Your task to perform on an android device: change timer sound Image 0: 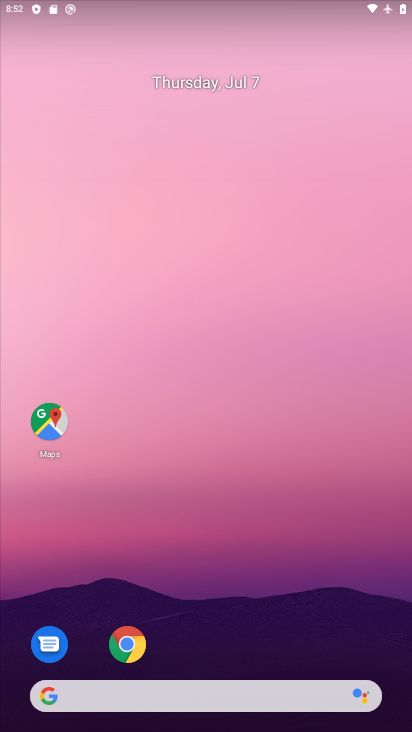
Step 0: click (232, 444)
Your task to perform on an android device: change timer sound Image 1: 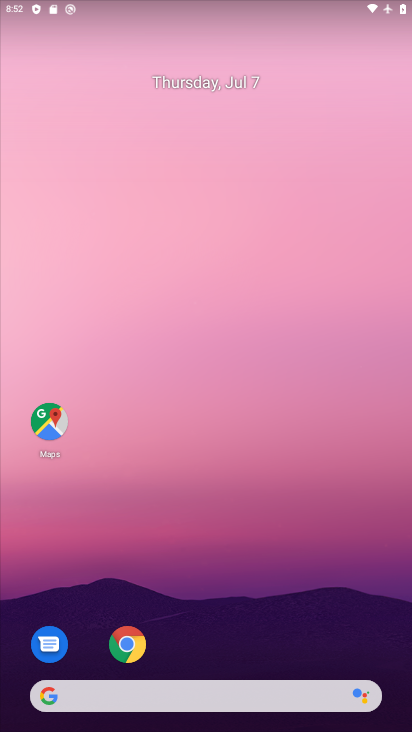
Step 1: drag from (274, 713) to (189, 25)
Your task to perform on an android device: change timer sound Image 2: 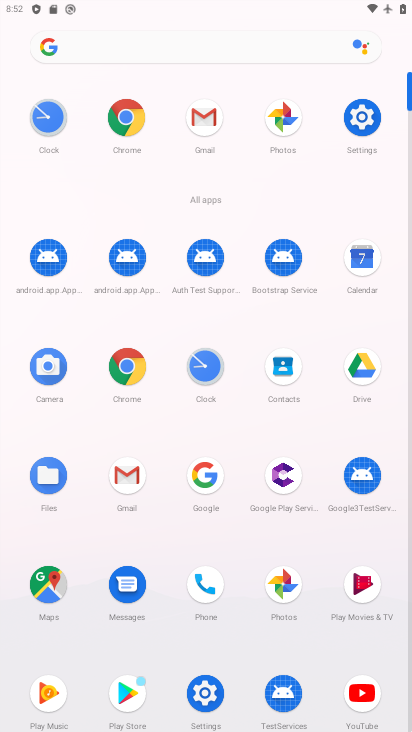
Step 2: click (357, 118)
Your task to perform on an android device: change timer sound Image 3: 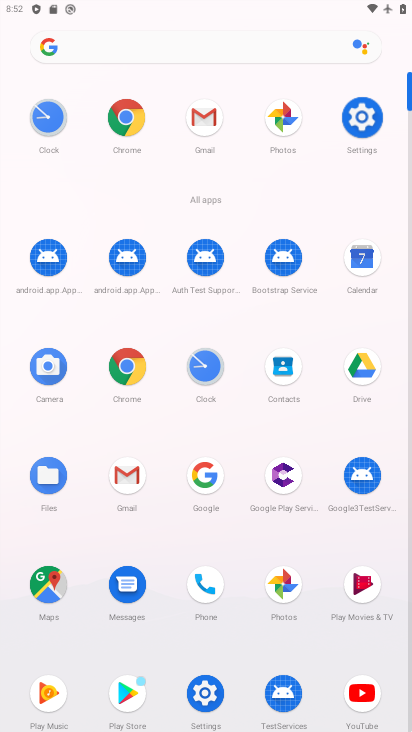
Step 3: click (357, 118)
Your task to perform on an android device: change timer sound Image 4: 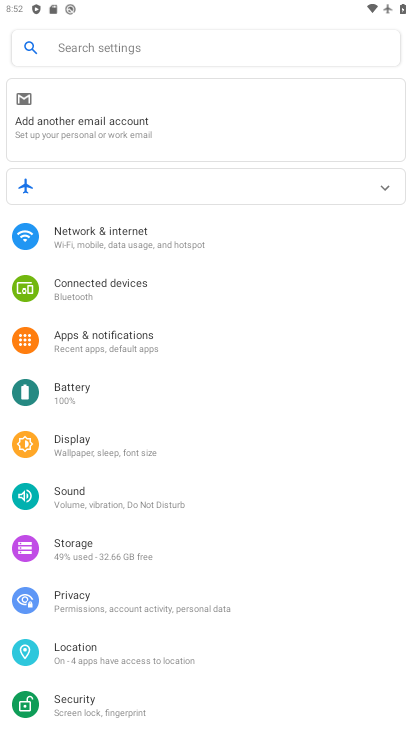
Step 4: press back button
Your task to perform on an android device: change timer sound Image 5: 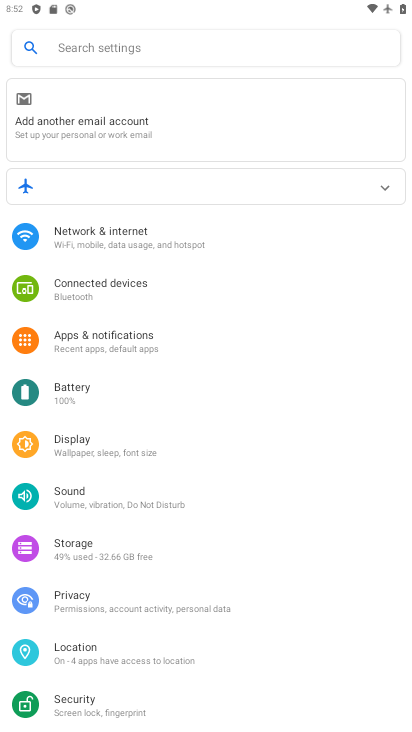
Step 5: press back button
Your task to perform on an android device: change timer sound Image 6: 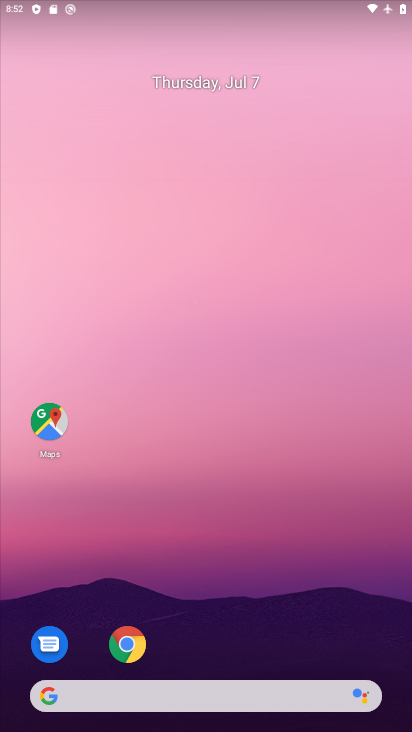
Step 6: drag from (276, 700) to (248, 232)
Your task to perform on an android device: change timer sound Image 7: 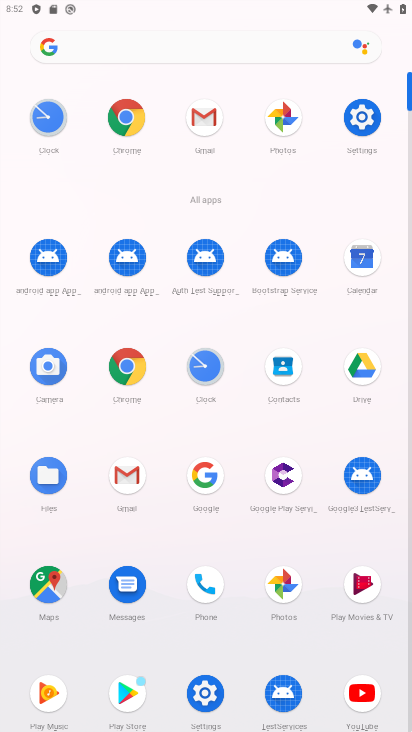
Step 7: click (213, 355)
Your task to perform on an android device: change timer sound Image 8: 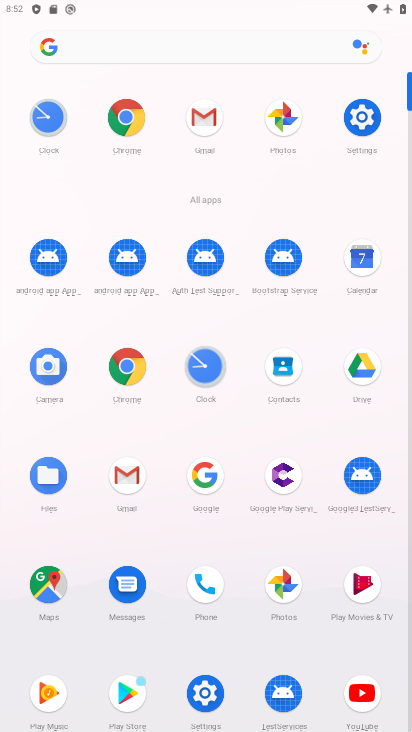
Step 8: click (212, 361)
Your task to perform on an android device: change timer sound Image 9: 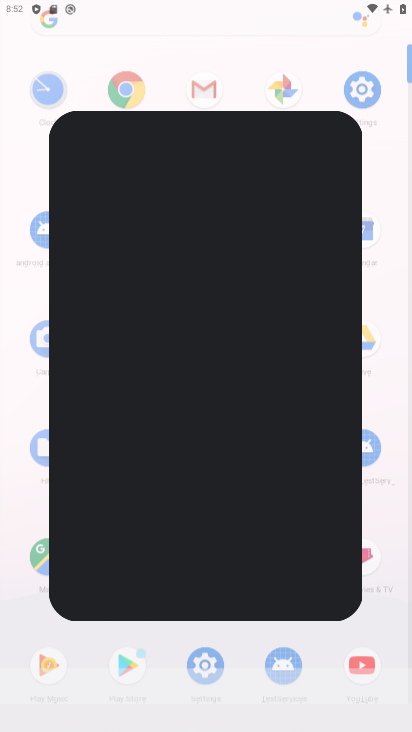
Step 9: click (214, 361)
Your task to perform on an android device: change timer sound Image 10: 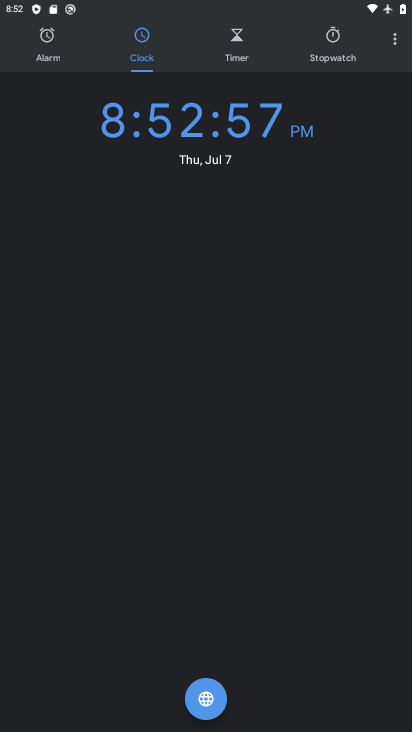
Step 10: click (394, 32)
Your task to perform on an android device: change timer sound Image 11: 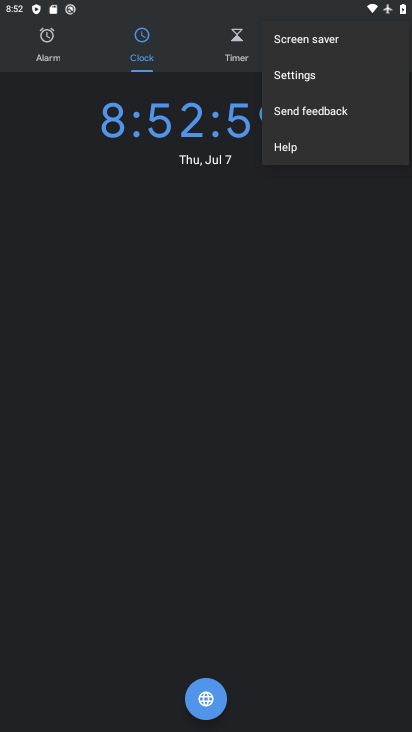
Step 11: click (305, 80)
Your task to perform on an android device: change timer sound Image 12: 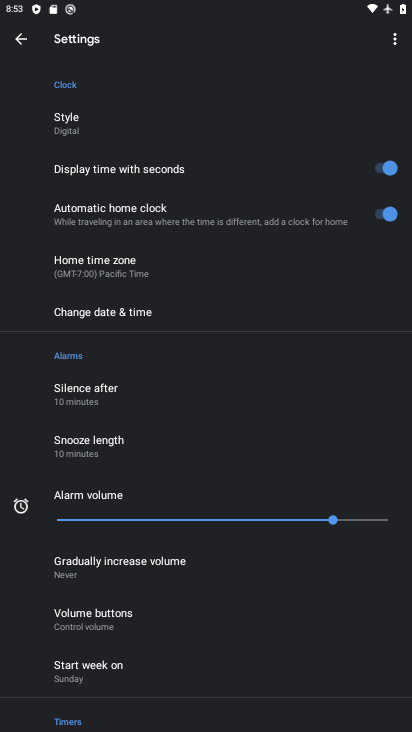
Step 12: drag from (132, 595) to (180, 151)
Your task to perform on an android device: change timer sound Image 13: 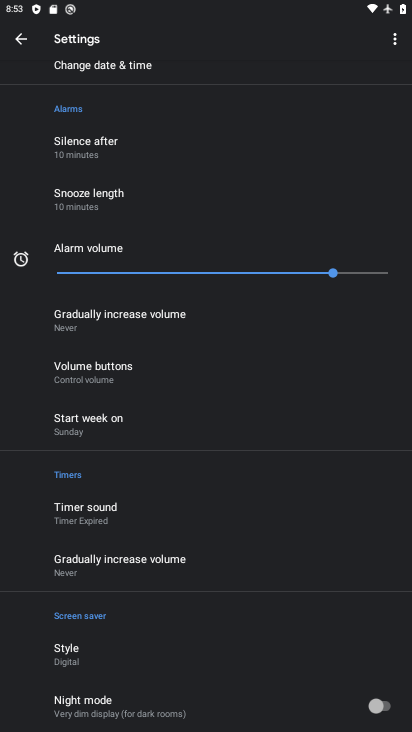
Step 13: click (85, 501)
Your task to perform on an android device: change timer sound Image 14: 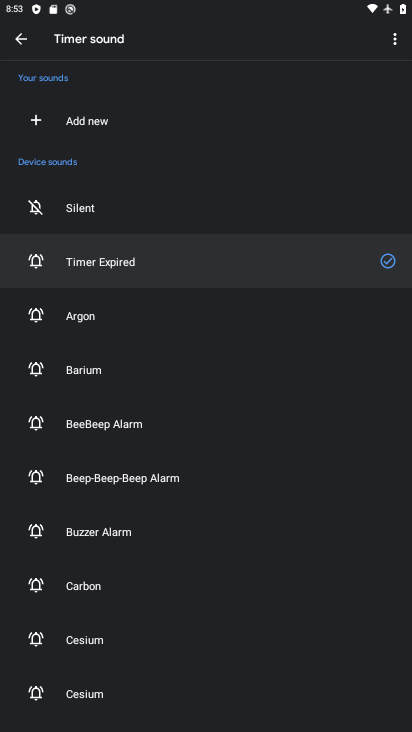
Step 14: click (64, 380)
Your task to perform on an android device: change timer sound Image 15: 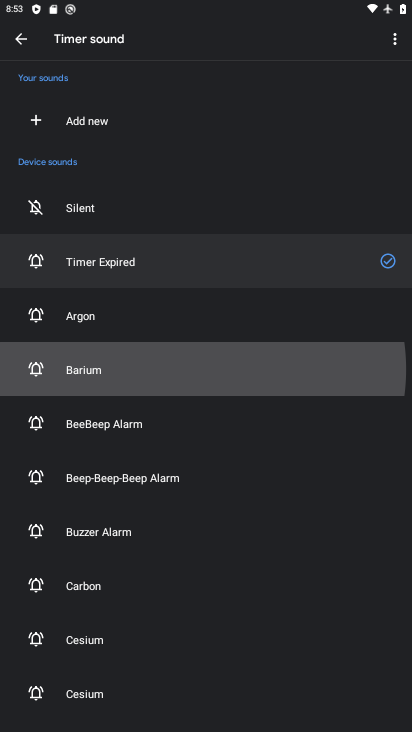
Step 15: click (74, 373)
Your task to perform on an android device: change timer sound Image 16: 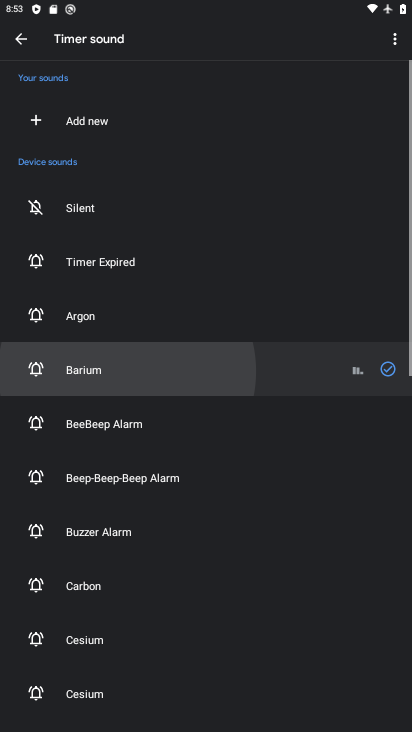
Step 16: click (75, 373)
Your task to perform on an android device: change timer sound Image 17: 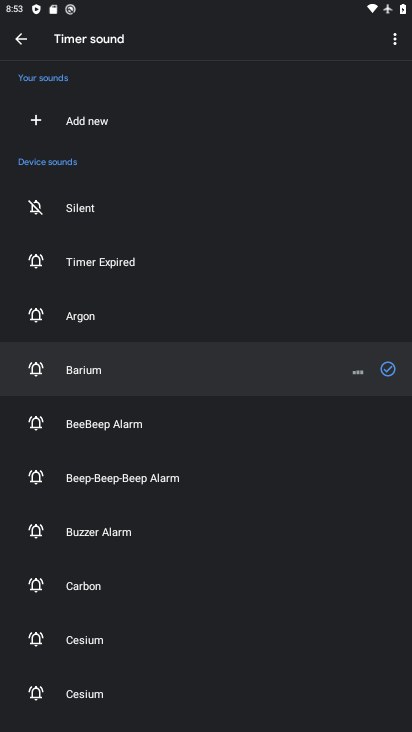
Step 17: task complete